Your task to perform on an android device: allow notifications from all sites in the chrome app Image 0: 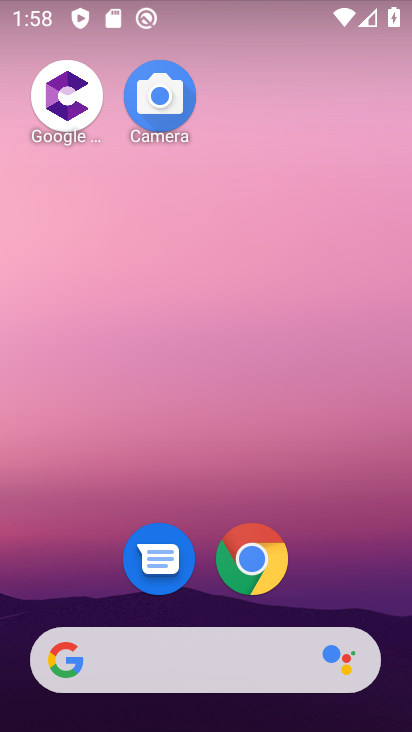
Step 0: click (257, 562)
Your task to perform on an android device: allow notifications from all sites in the chrome app Image 1: 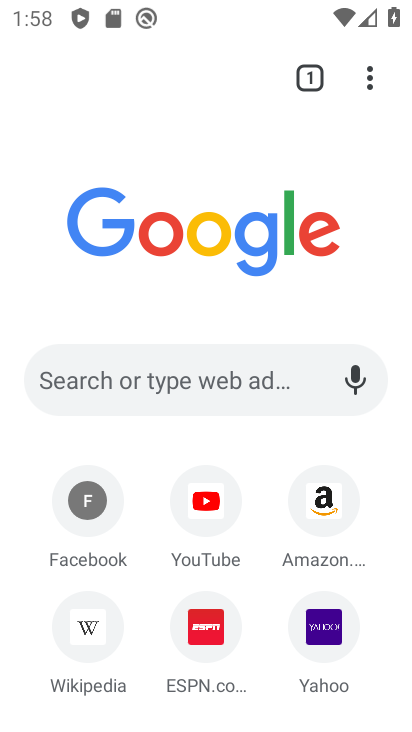
Step 1: click (369, 82)
Your task to perform on an android device: allow notifications from all sites in the chrome app Image 2: 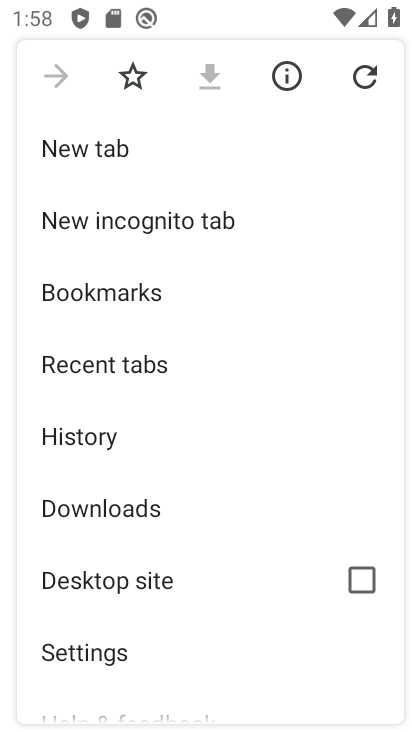
Step 2: click (85, 652)
Your task to perform on an android device: allow notifications from all sites in the chrome app Image 3: 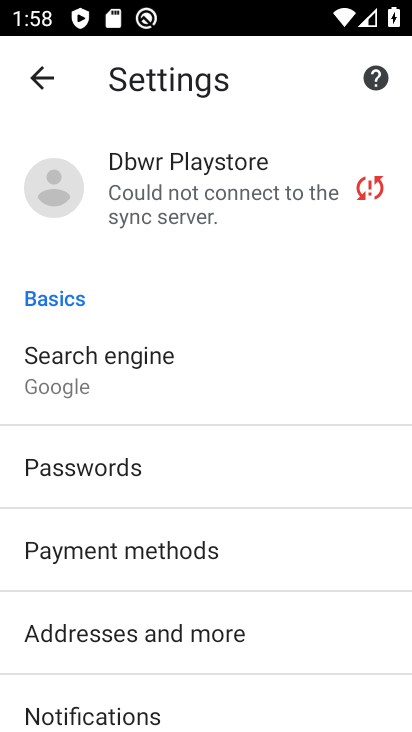
Step 3: drag from (183, 690) to (217, 569)
Your task to perform on an android device: allow notifications from all sites in the chrome app Image 4: 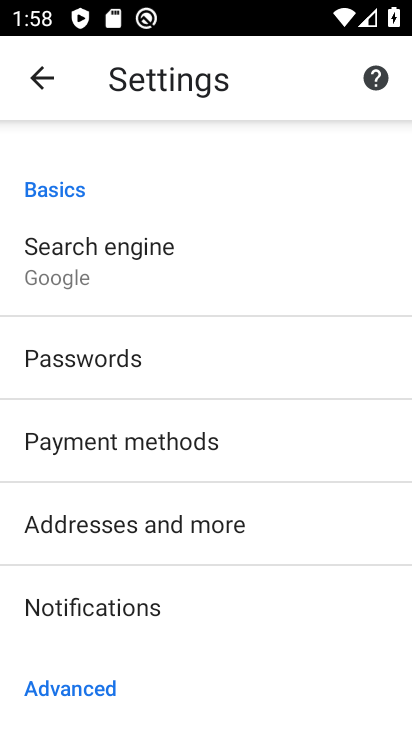
Step 4: drag from (149, 650) to (207, 551)
Your task to perform on an android device: allow notifications from all sites in the chrome app Image 5: 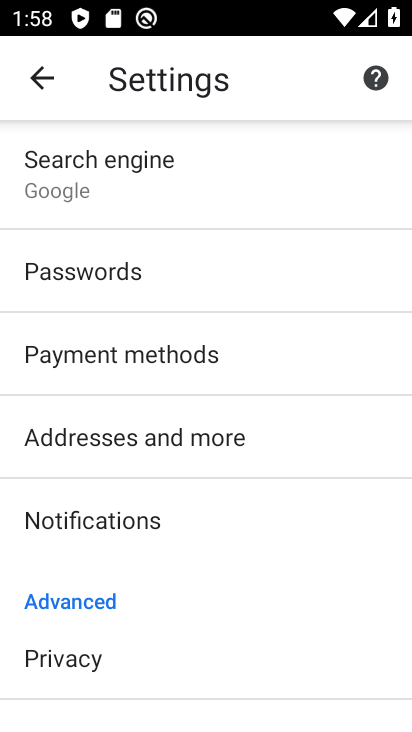
Step 5: drag from (175, 639) to (231, 541)
Your task to perform on an android device: allow notifications from all sites in the chrome app Image 6: 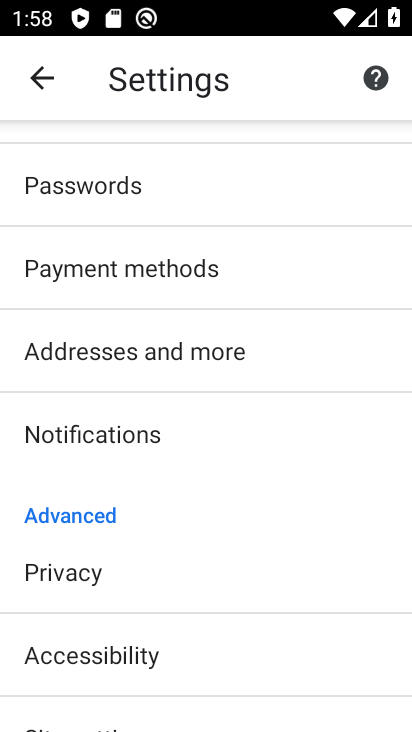
Step 6: drag from (237, 622) to (271, 561)
Your task to perform on an android device: allow notifications from all sites in the chrome app Image 7: 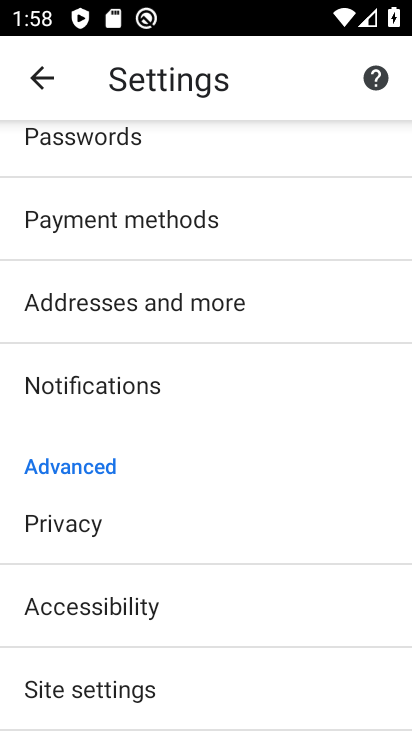
Step 7: click (140, 689)
Your task to perform on an android device: allow notifications from all sites in the chrome app Image 8: 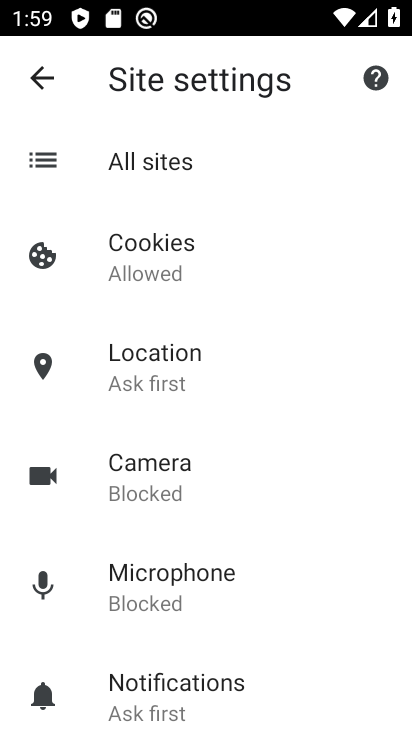
Step 8: click (185, 678)
Your task to perform on an android device: allow notifications from all sites in the chrome app Image 9: 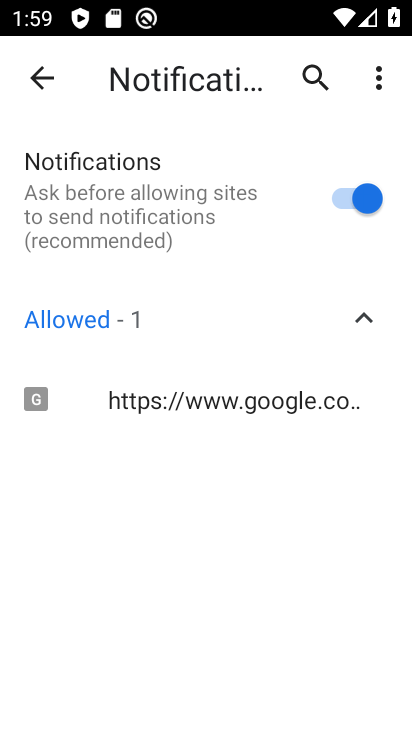
Step 9: task complete